Your task to perform on an android device: Open location settings Image 0: 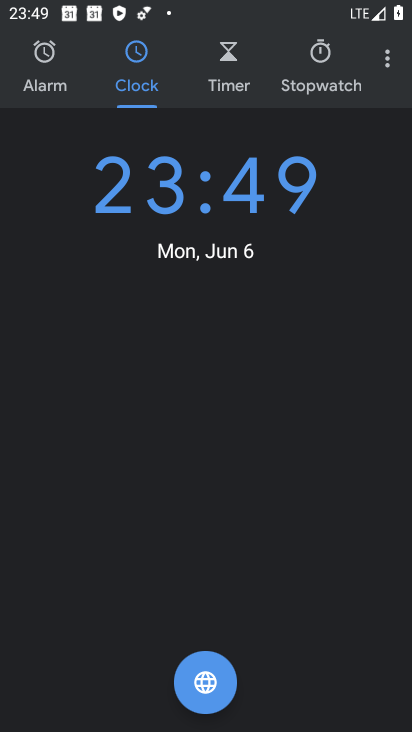
Step 0: press home button
Your task to perform on an android device: Open location settings Image 1: 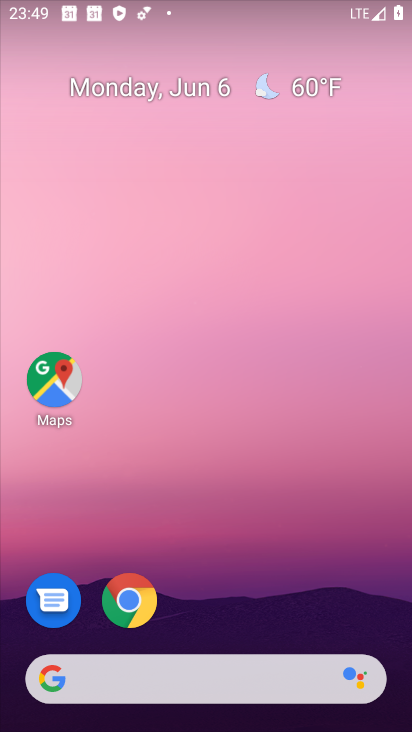
Step 1: drag from (229, 702) to (231, 223)
Your task to perform on an android device: Open location settings Image 2: 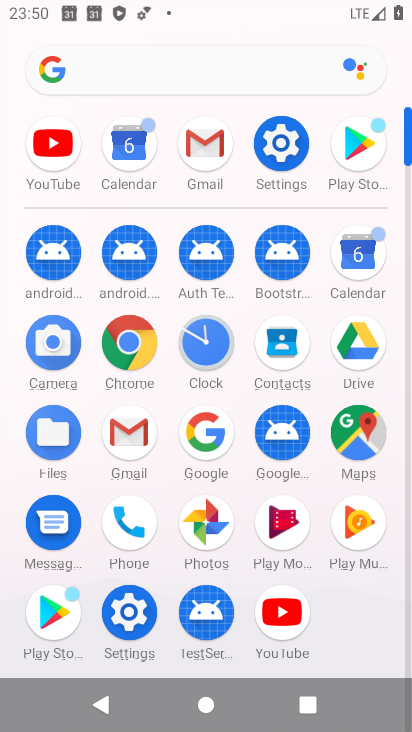
Step 2: click (284, 131)
Your task to perform on an android device: Open location settings Image 3: 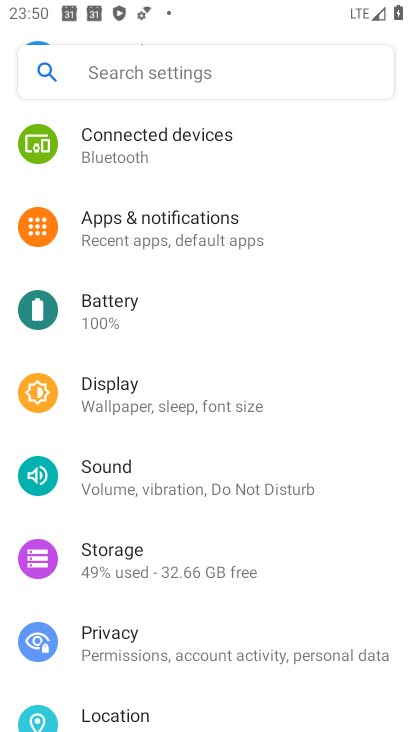
Step 3: click (124, 712)
Your task to perform on an android device: Open location settings Image 4: 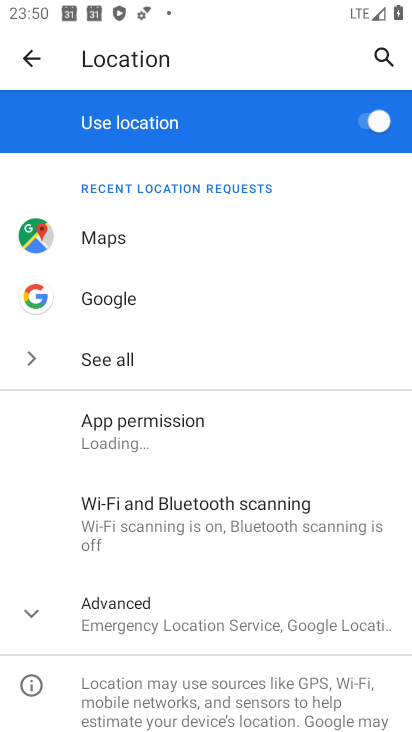
Step 4: task complete